Your task to perform on an android device: toggle wifi Image 0: 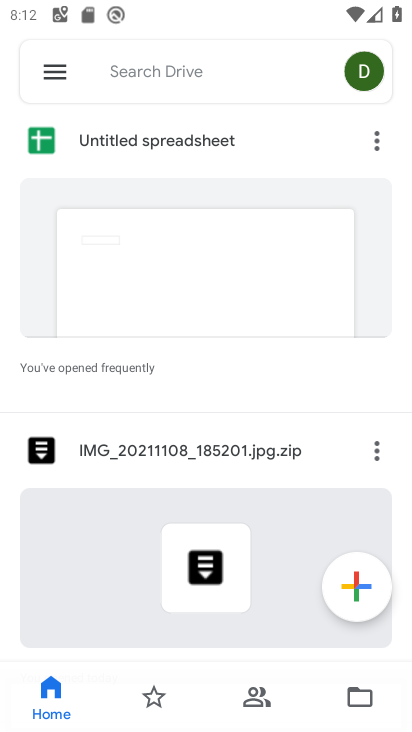
Step 0: press home button
Your task to perform on an android device: toggle wifi Image 1: 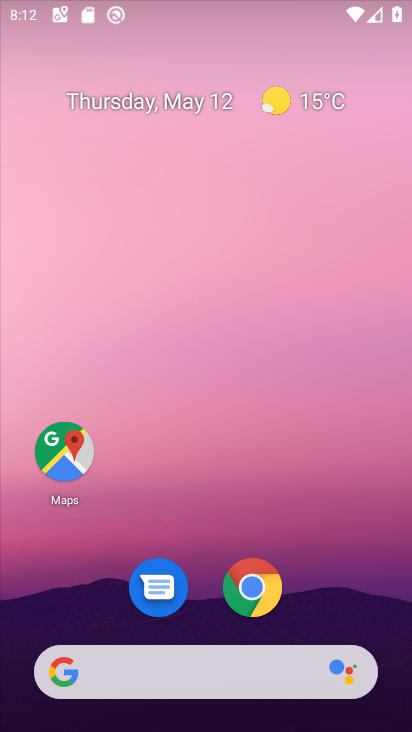
Step 1: drag from (357, 603) to (246, 30)
Your task to perform on an android device: toggle wifi Image 2: 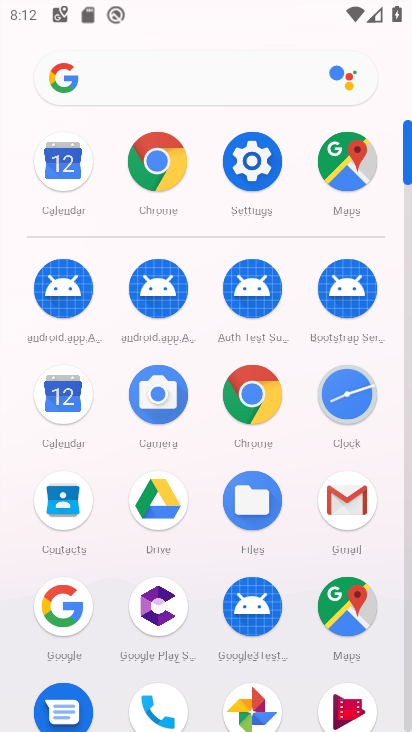
Step 2: drag from (163, 2) to (220, 478)
Your task to perform on an android device: toggle wifi Image 3: 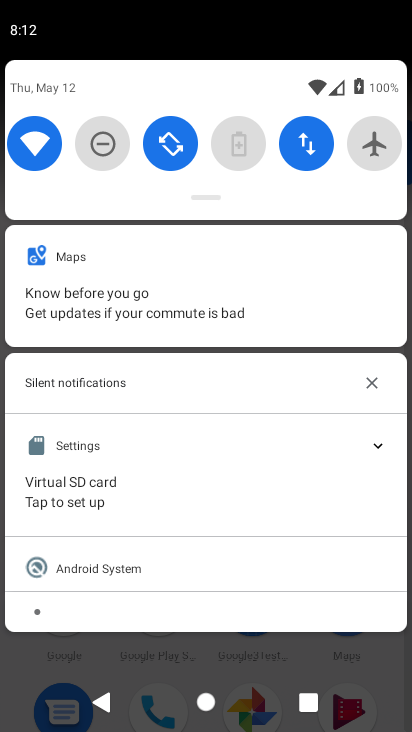
Step 3: click (44, 151)
Your task to perform on an android device: toggle wifi Image 4: 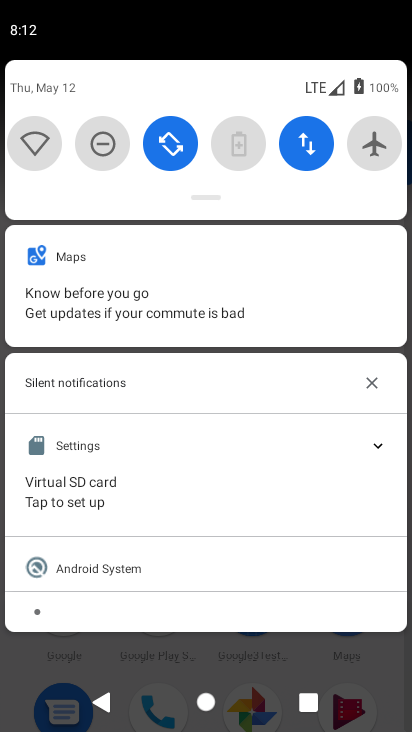
Step 4: task complete